Your task to perform on an android device: turn off wifi Image 0: 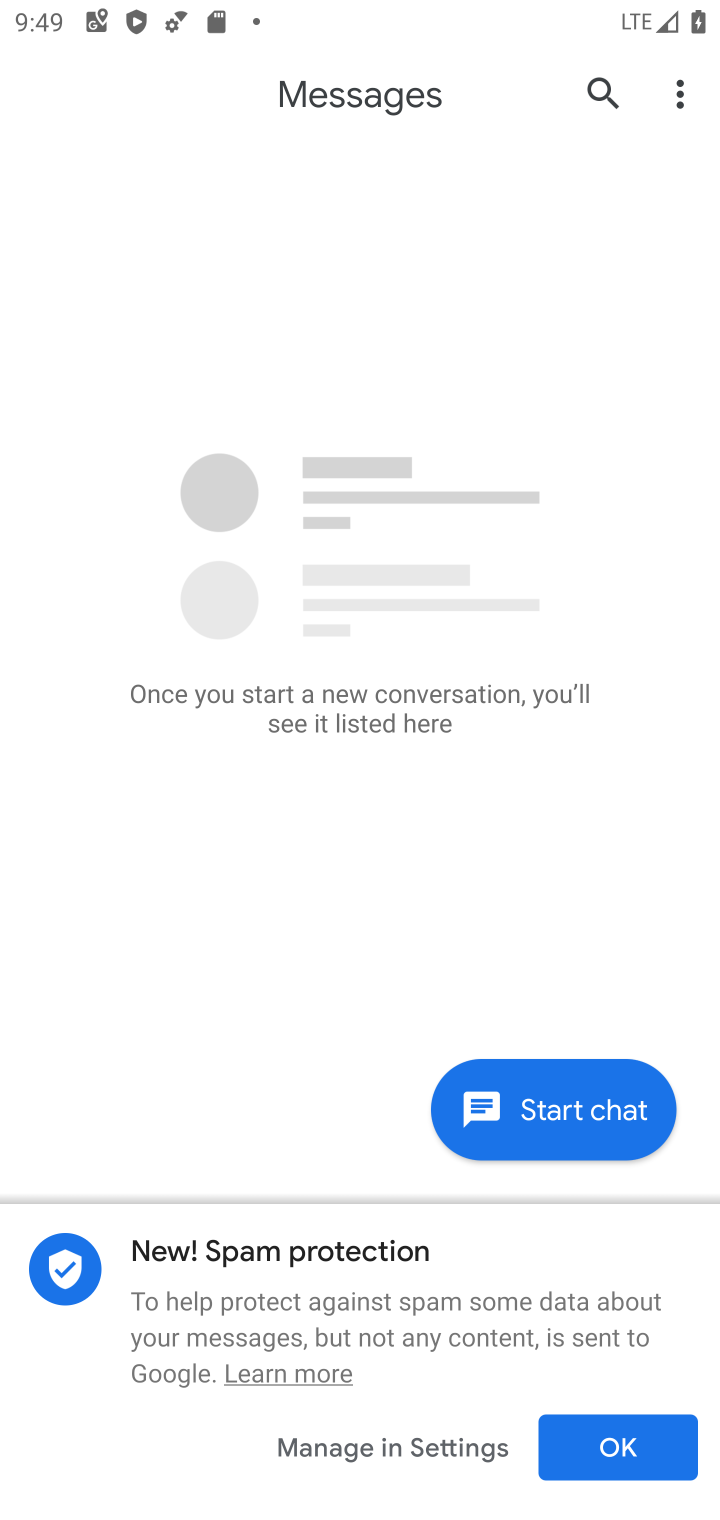
Step 0: press home button
Your task to perform on an android device: turn off wifi Image 1: 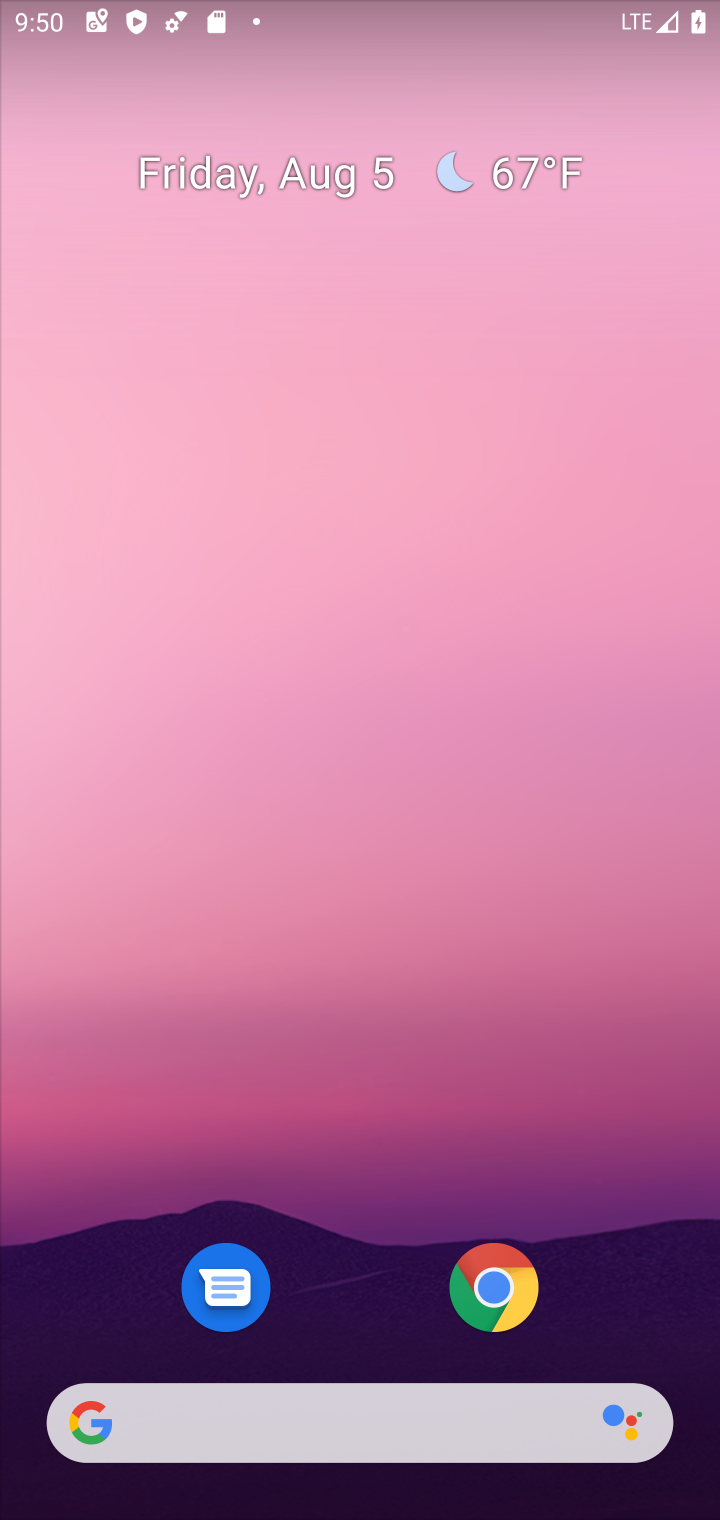
Step 1: drag from (348, 1239) to (348, 164)
Your task to perform on an android device: turn off wifi Image 2: 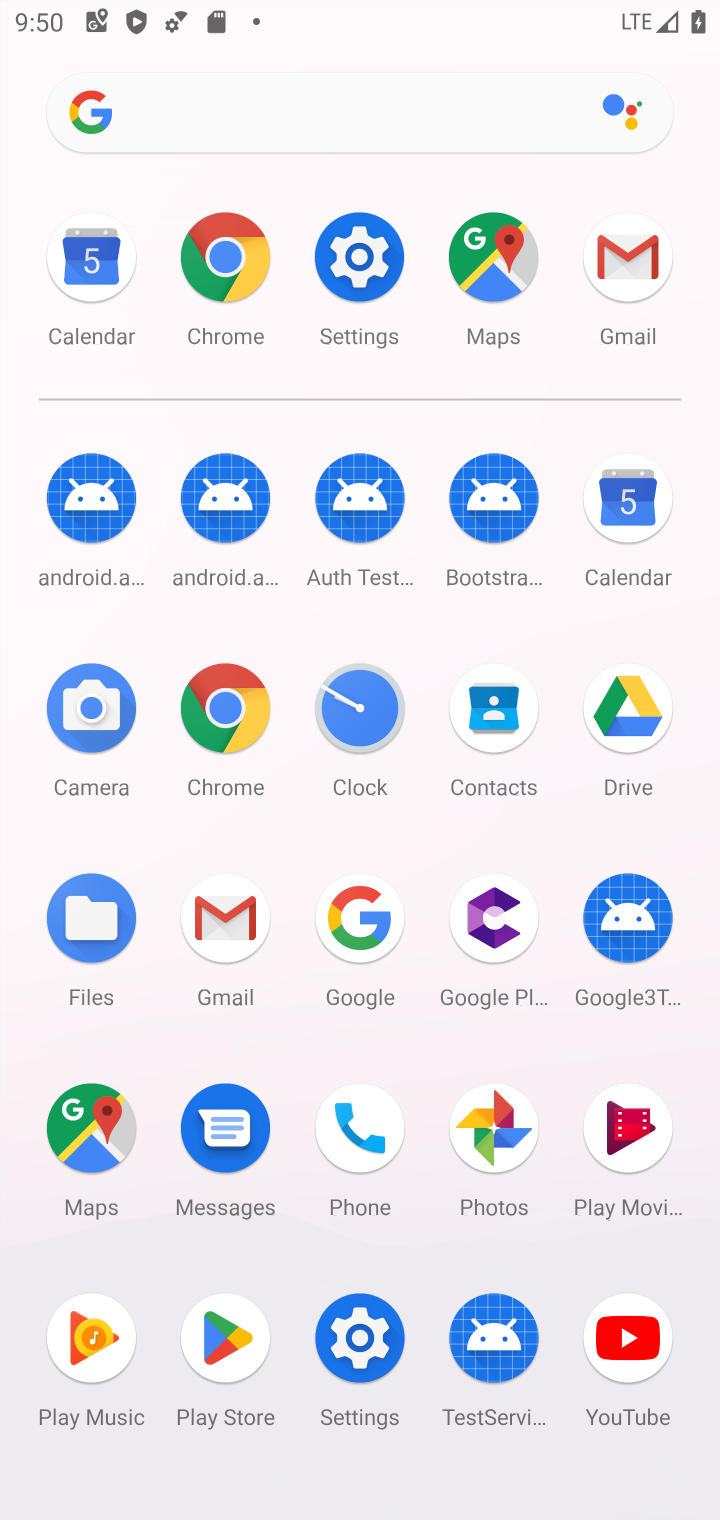
Step 2: click (350, 246)
Your task to perform on an android device: turn off wifi Image 3: 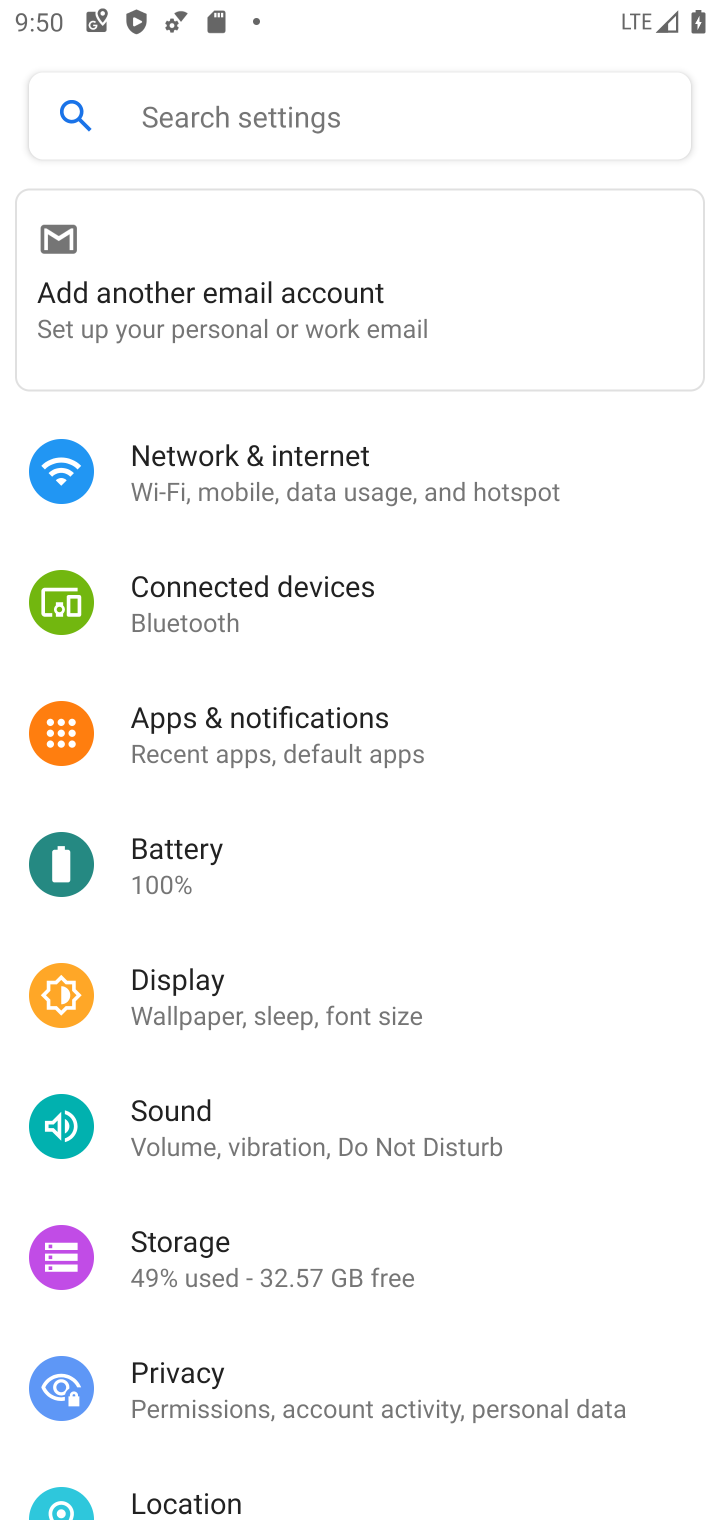
Step 3: click (219, 462)
Your task to perform on an android device: turn off wifi Image 4: 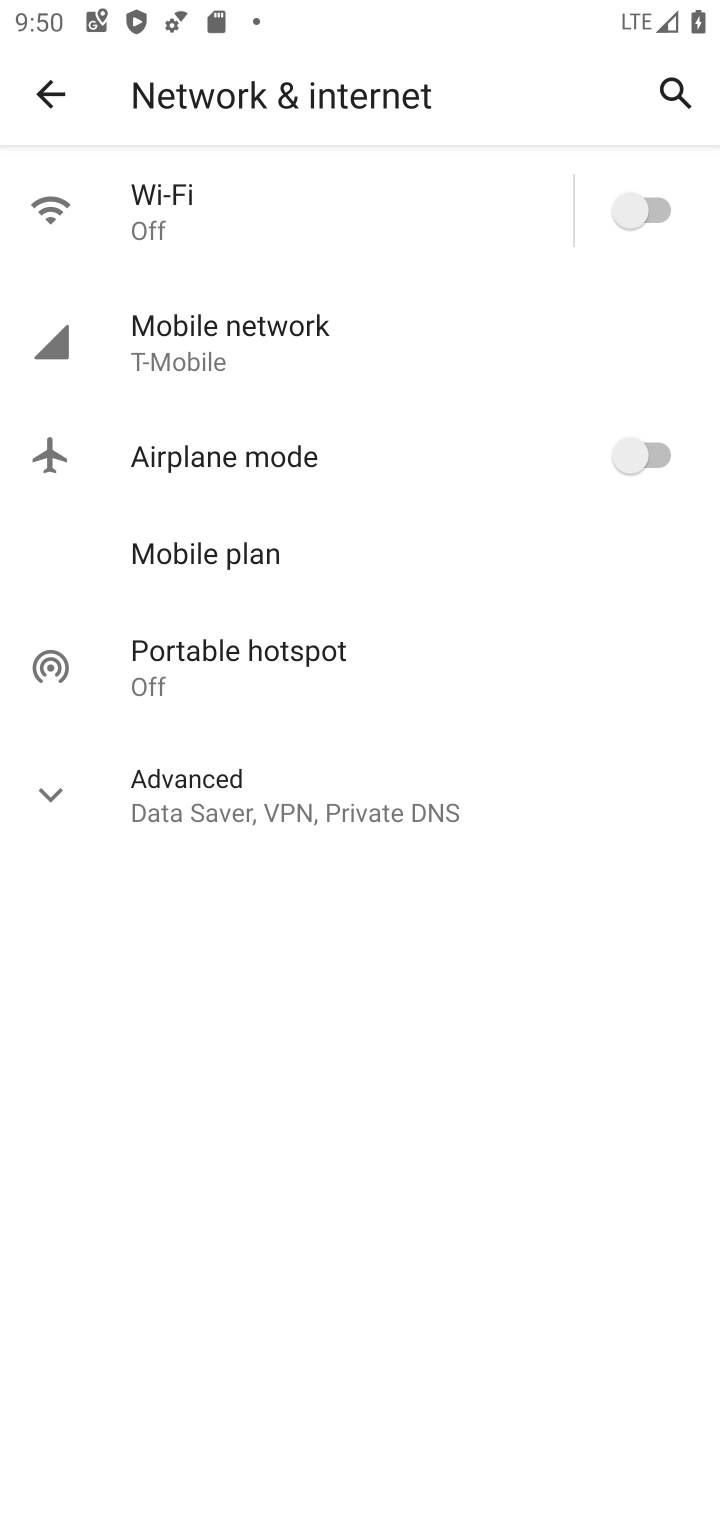
Step 4: task complete